Your task to perform on an android device: turn off airplane mode Image 0: 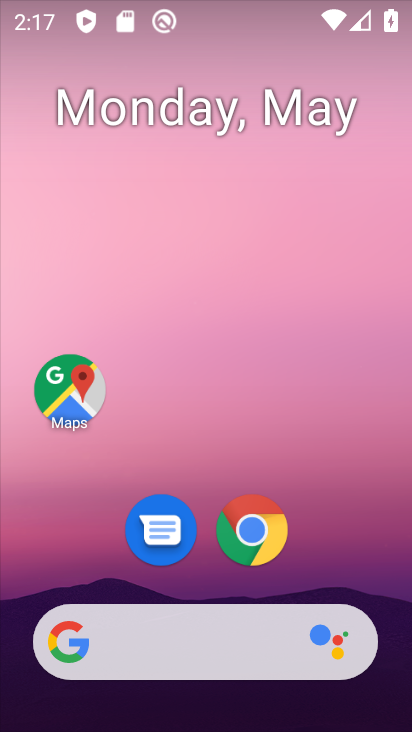
Step 0: drag from (178, 60) to (171, 502)
Your task to perform on an android device: turn off airplane mode Image 1: 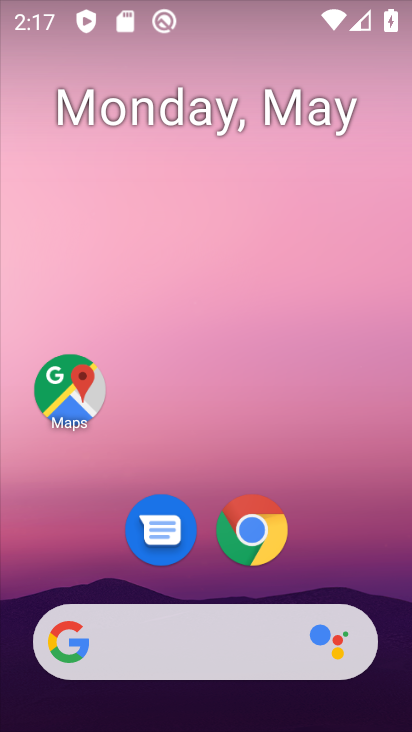
Step 1: drag from (329, 7) to (259, 554)
Your task to perform on an android device: turn off airplane mode Image 2: 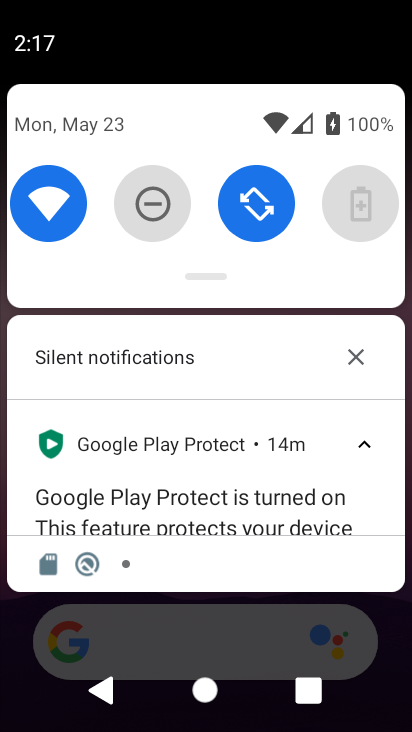
Step 2: drag from (219, 274) to (187, 658)
Your task to perform on an android device: turn off airplane mode Image 3: 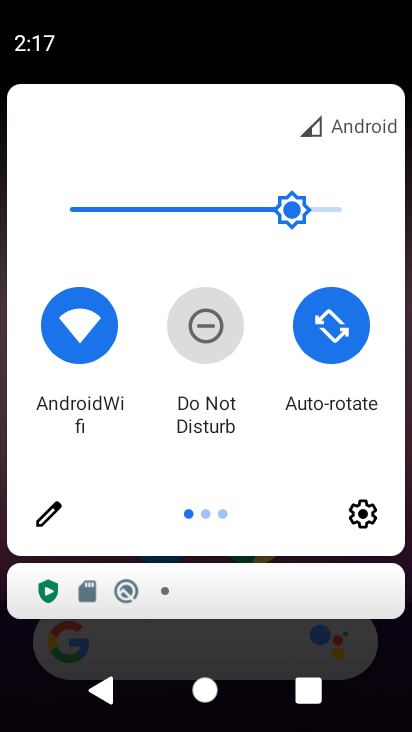
Step 3: click (6, 369)
Your task to perform on an android device: turn off airplane mode Image 4: 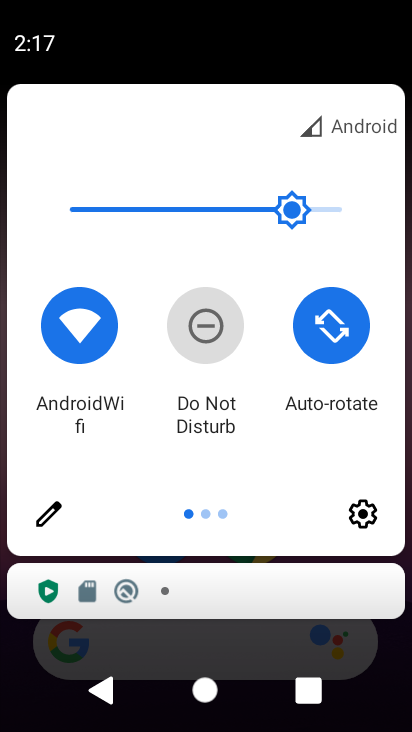
Step 4: task complete